Your task to perform on an android device: What's the weather? Image 0: 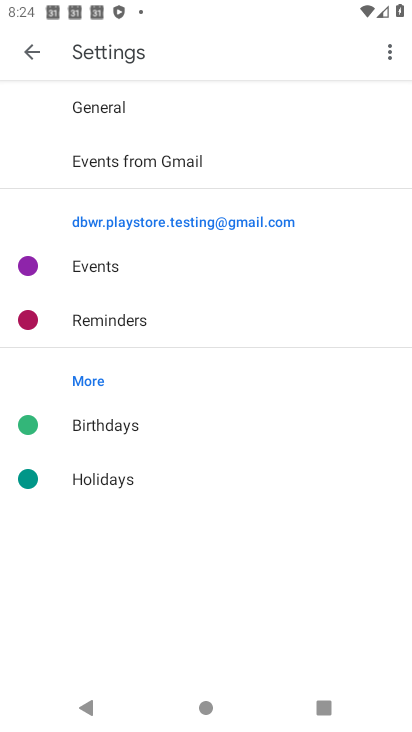
Step 0: press home button
Your task to perform on an android device: What's the weather? Image 1: 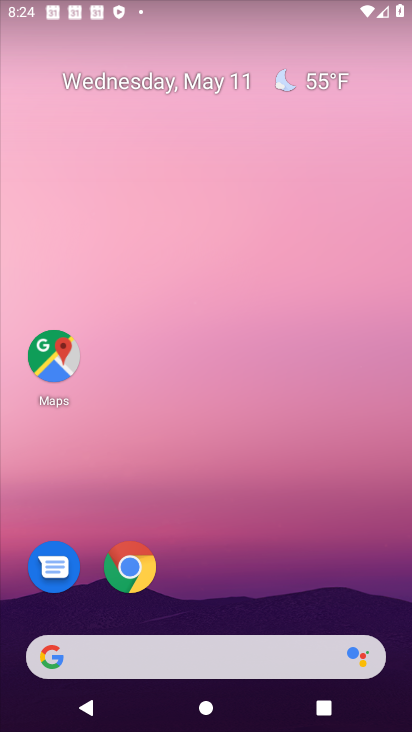
Step 1: drag from (230, 626) to (279, 33)
Your task to perform on an android device: What's the weather? Image 2: 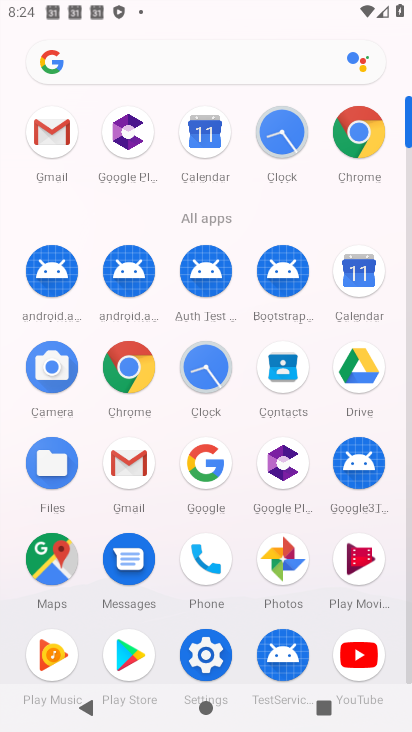
Step 2: click (129, 380)
Your task to perform on an android device: What's the weather? Image 3: 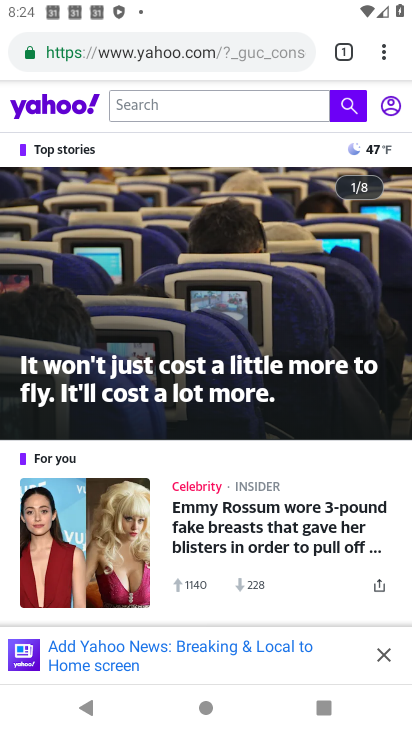
Step 3: click (249, 57)
Your task to perform on an android device: What's the weather? Image 4: 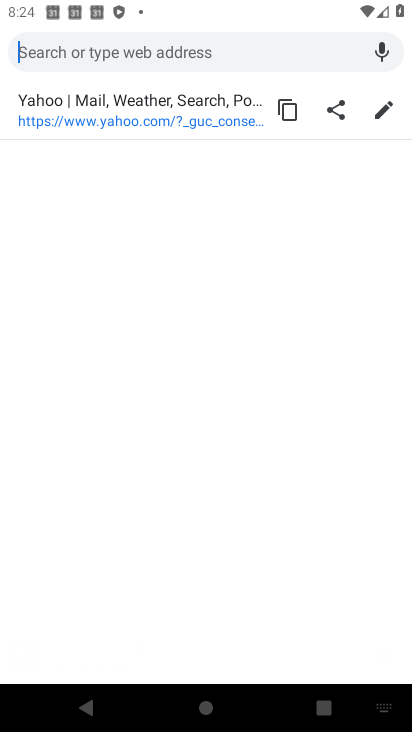
Step 4: type ""
Your task to perform on an android device: What's the weather? Image 5: 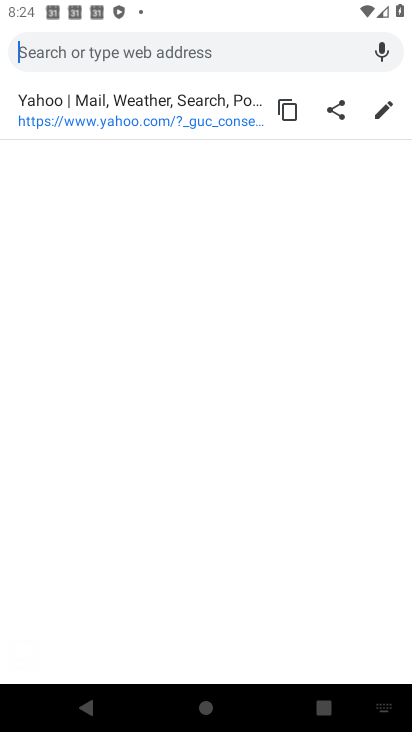
Step 5: type "whats the weather"
Your task to perform on an android device: What's the weather? Image 6: 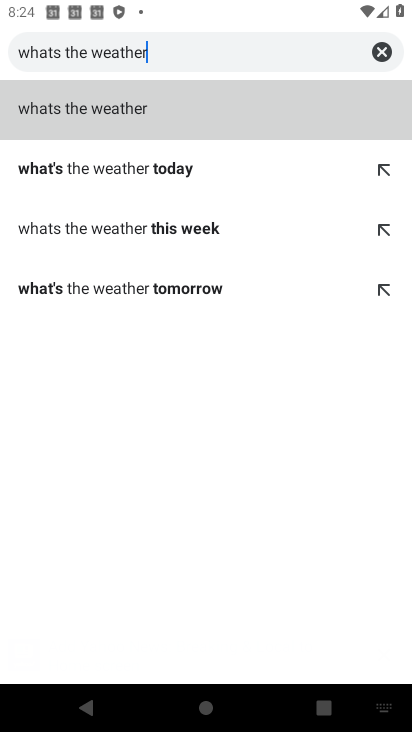
Step 6: click (147, 133)
Your task to perform on an android device: What's the weather? Image 7: 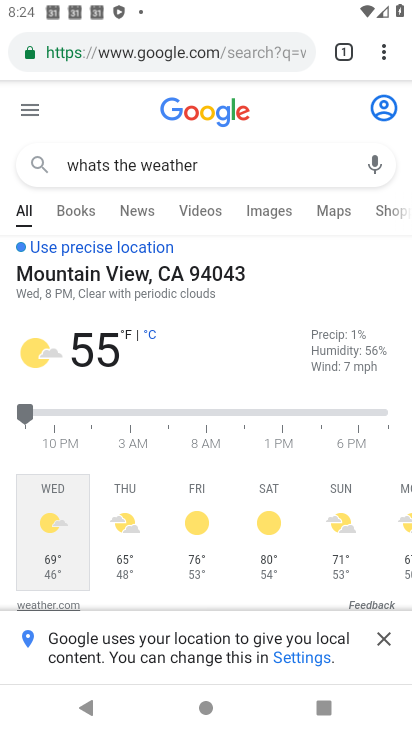
Step 7: task complete